Your task to perform on an android device: turn off picture-in-picture Image 0: 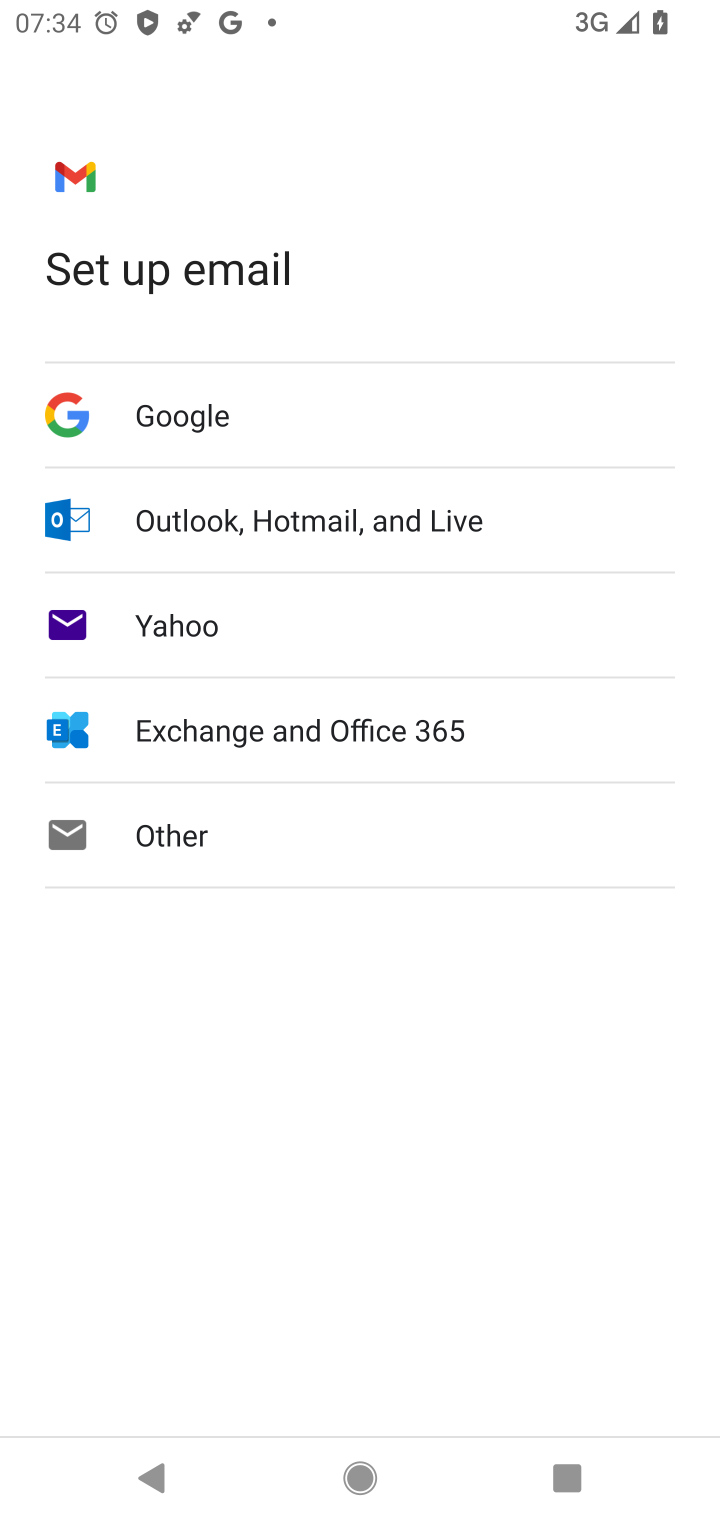
Step 0: press home button
Your task to perform on an android device: turn off picture-in-picture Image 1: 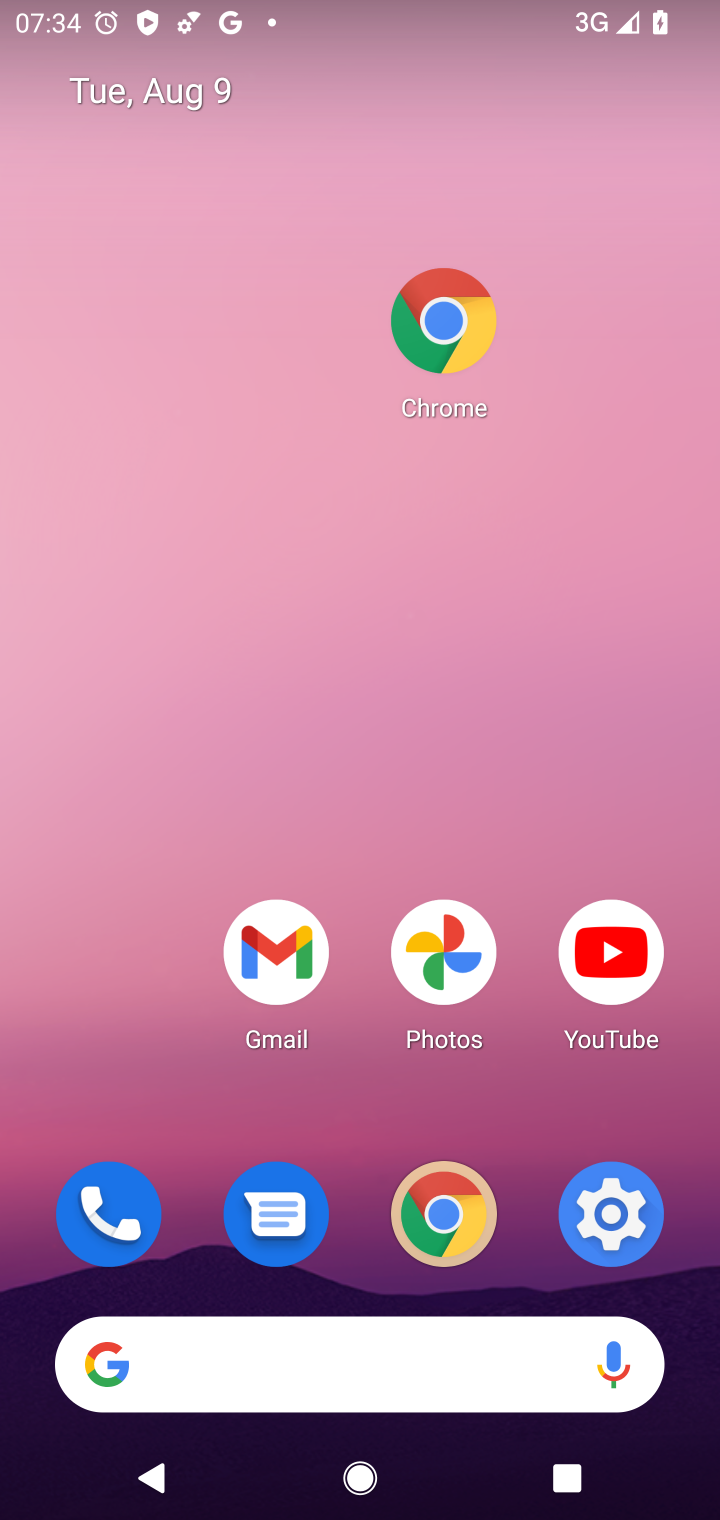
Step 1: click (615, 945)
Your task to perform on an android device: turn off picture-in-picture Image 2: 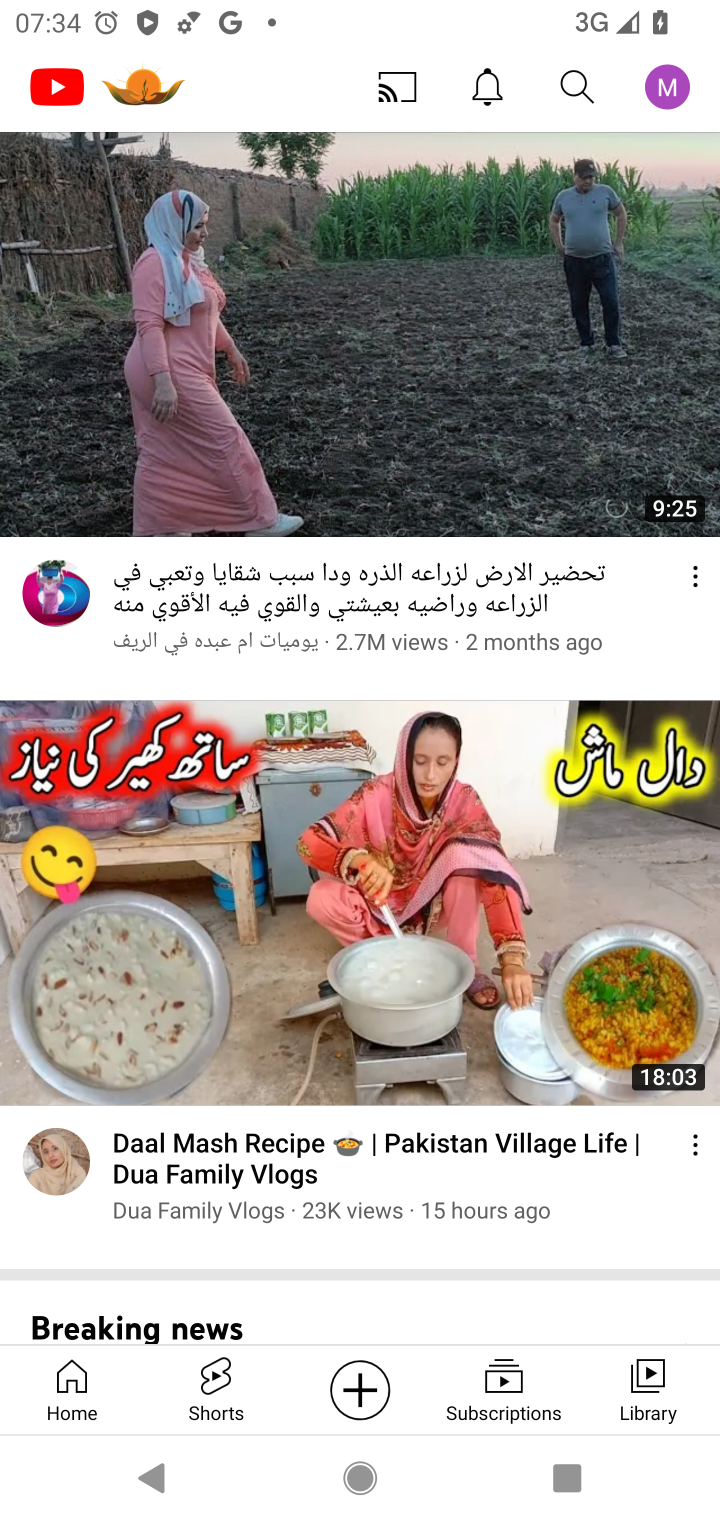
Step 2: click (661, 103)
Your task to perform on an android device: turn off picture-in-picture Image 3: 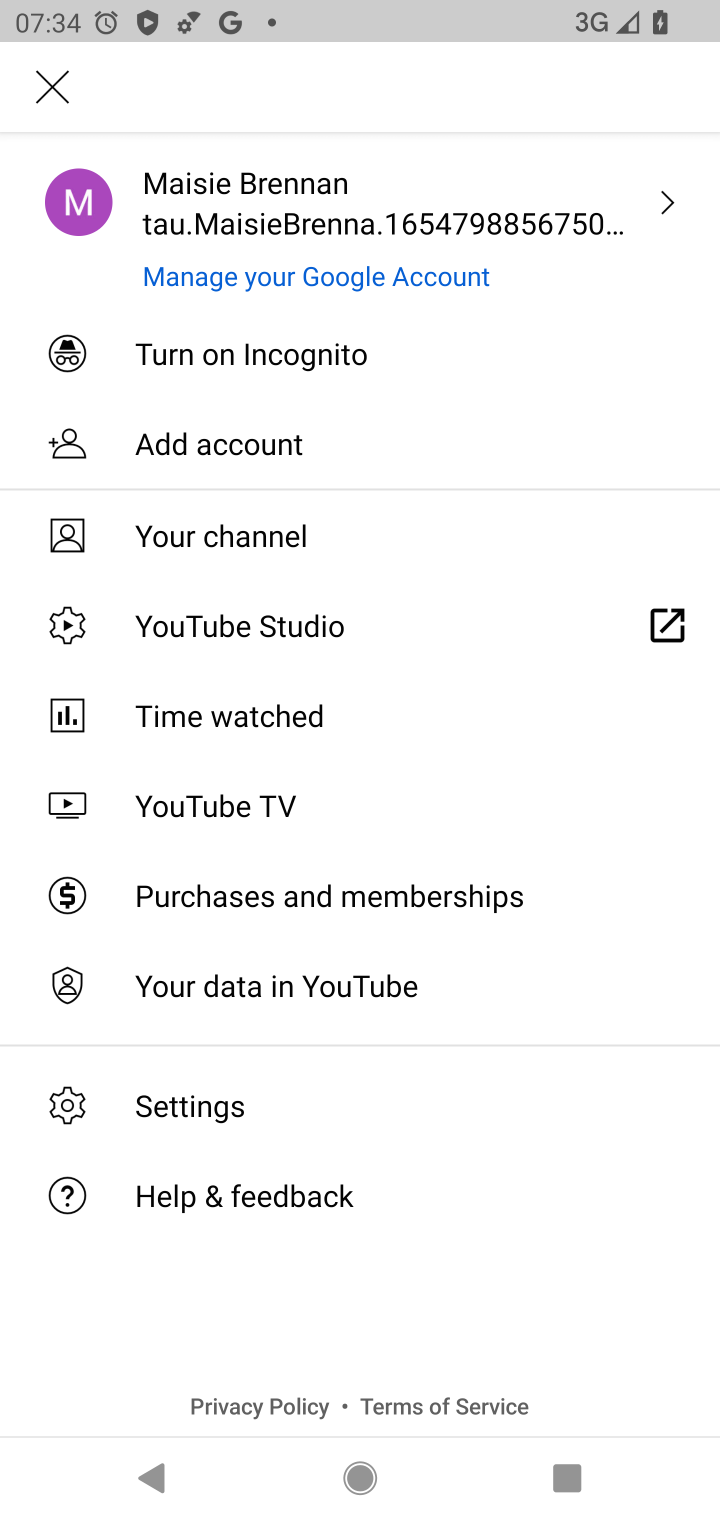
Step 3: click (227, 551)
Your task to perform on an android device: turn off picture-in-picture Image 4: 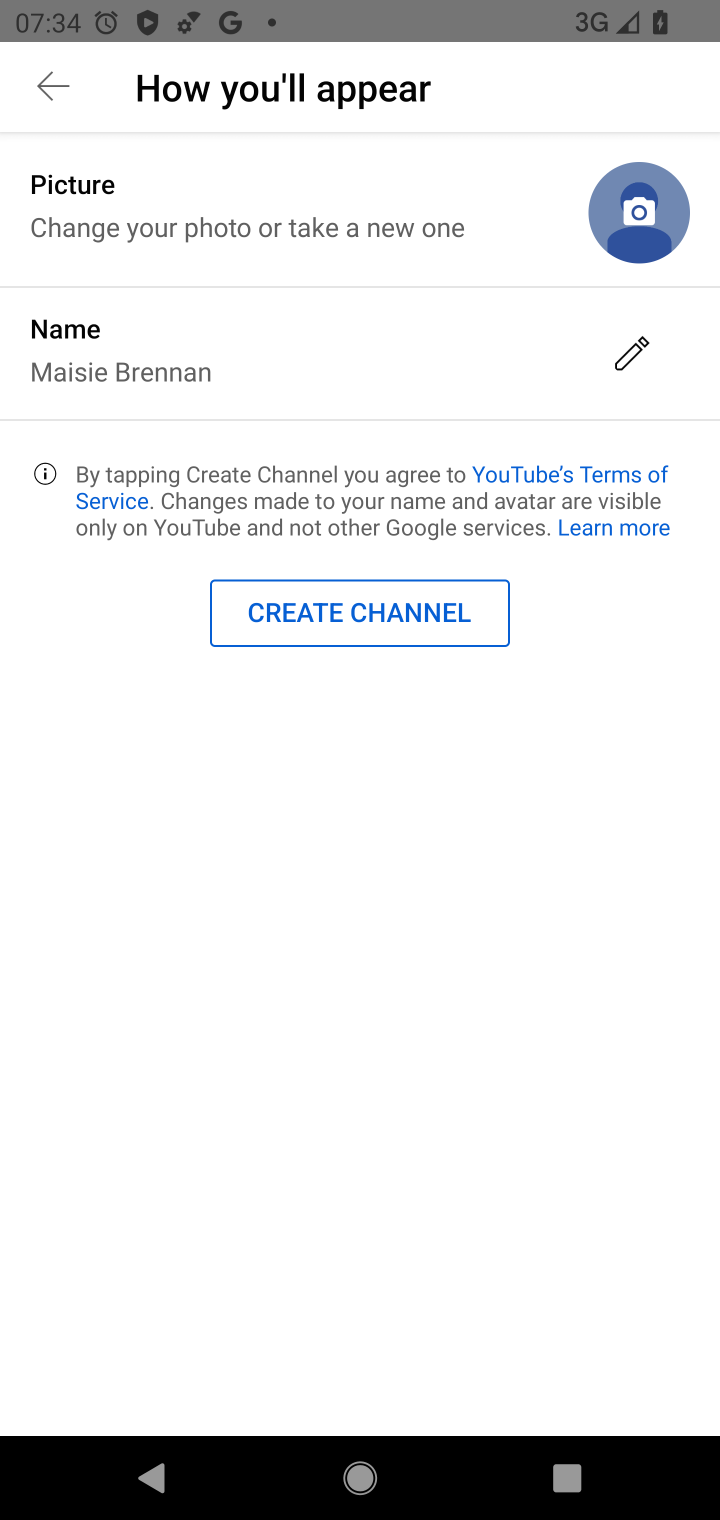
Step 4: click (57, 93)
Your task to perform on an android device: turn off picture-in-picture Image 5: 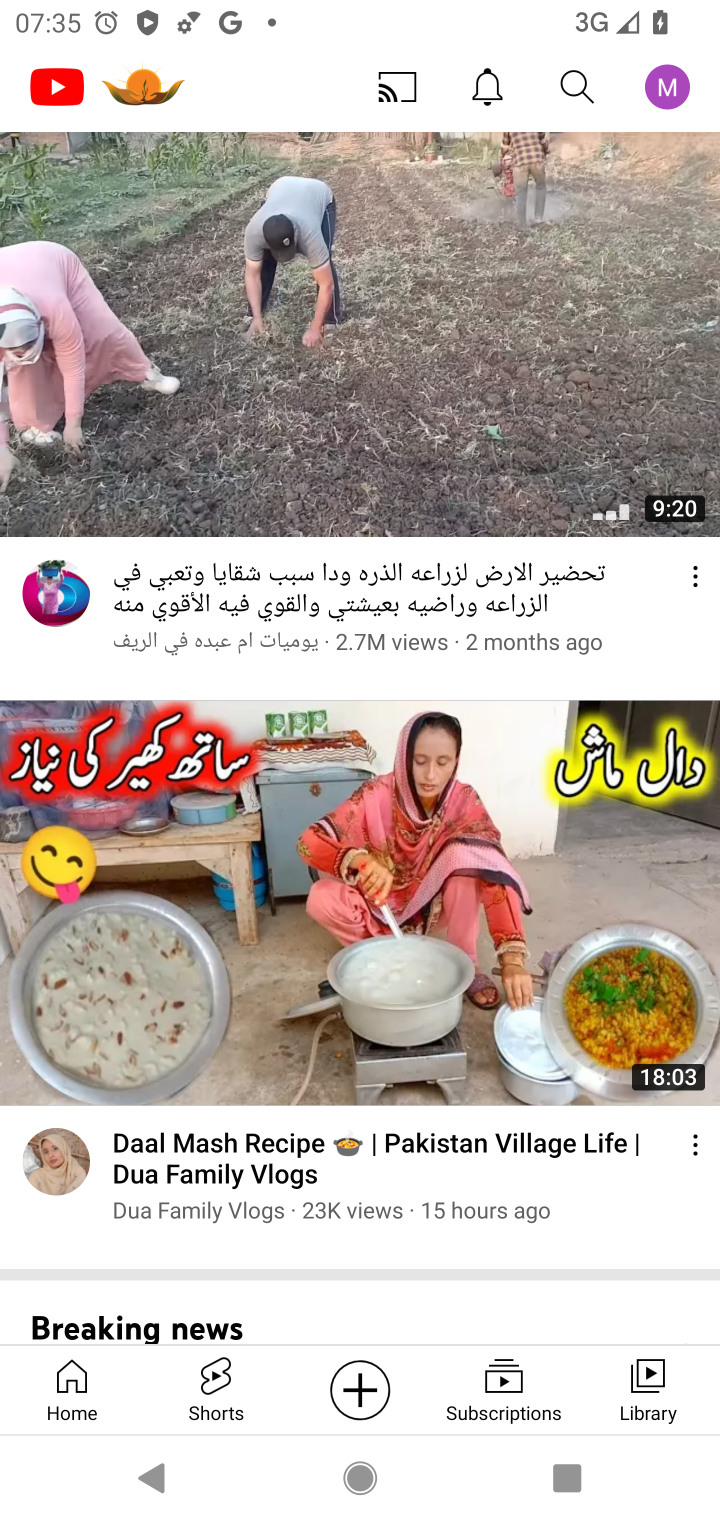
Step 5: click (668, 98)
Your task to perform on an android device: turn off picture-in-picture Image 6: 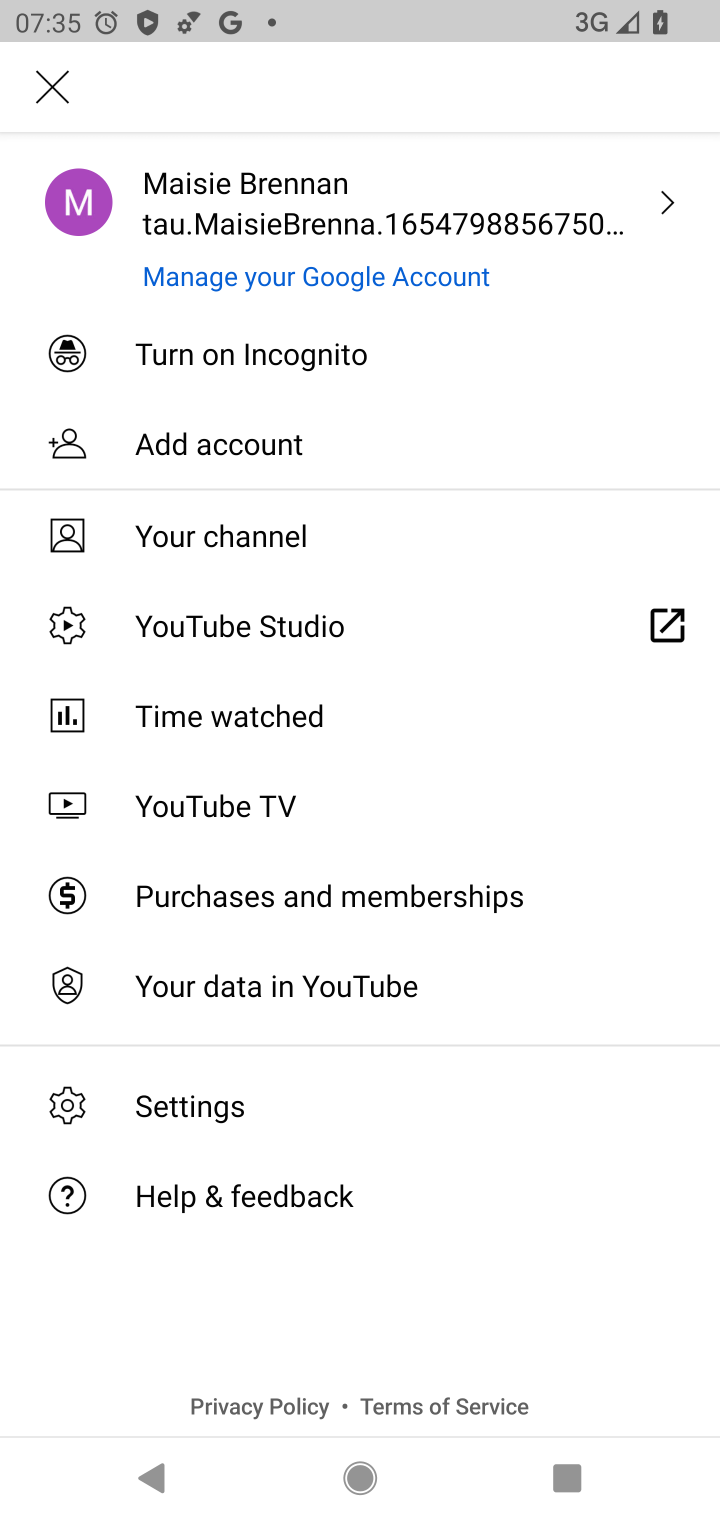
Step 6: click (139, 1112)
Your task to perform on an android device: turn off picture-in-picture Image 7: 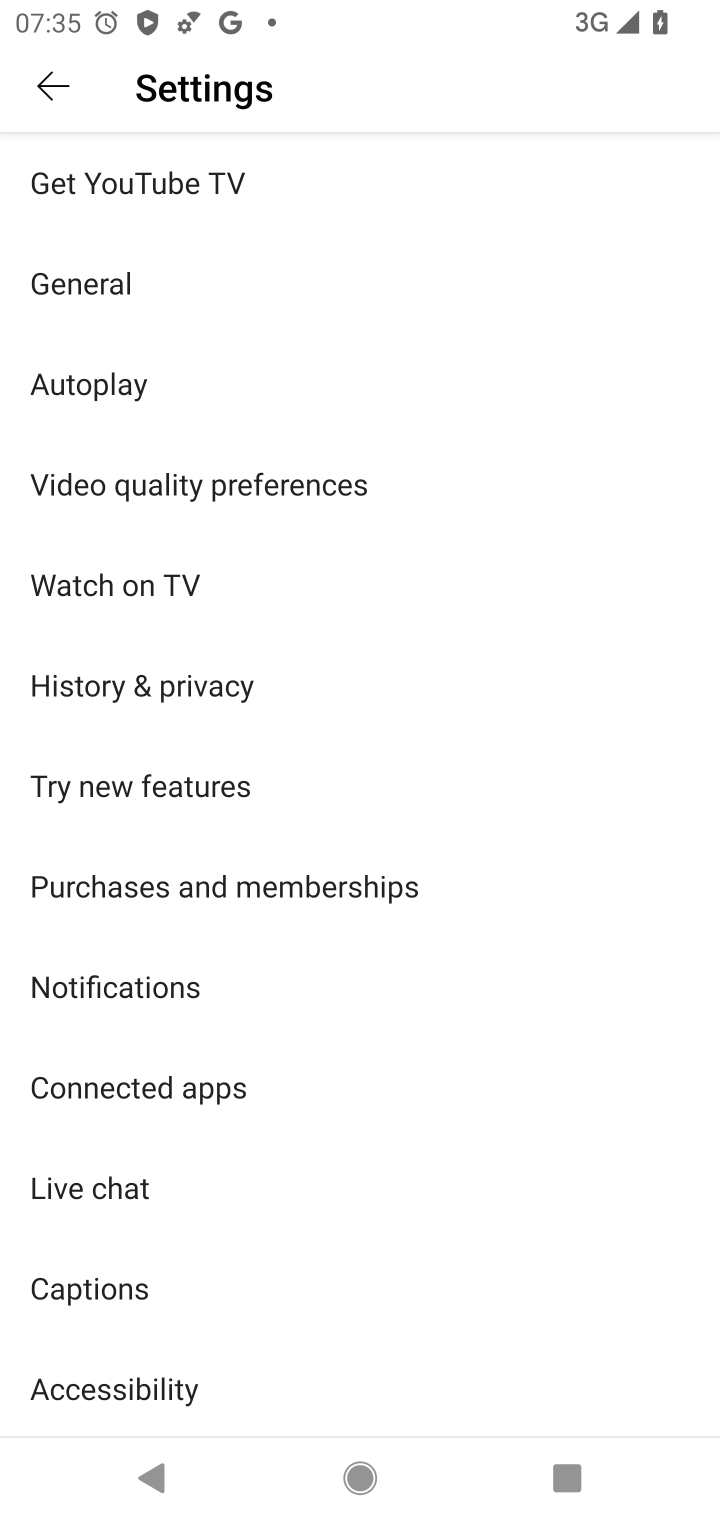
Step 7: click (70, 254)
Your task to perform on an android device: turn off picture-in-picture Image 8: 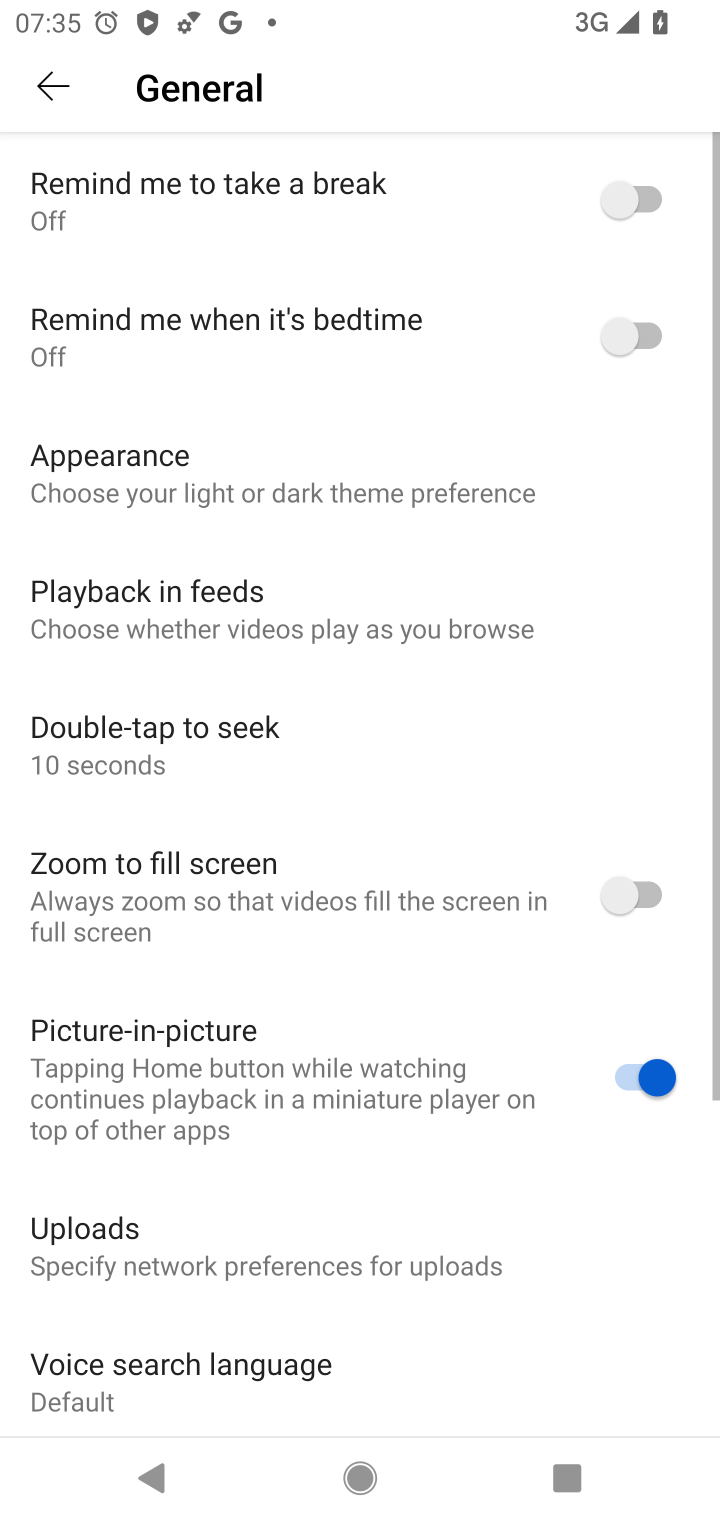
Step 8: click (644, 1090)
Your task to perform on an android device: turn off picture-in-picture Image 9: 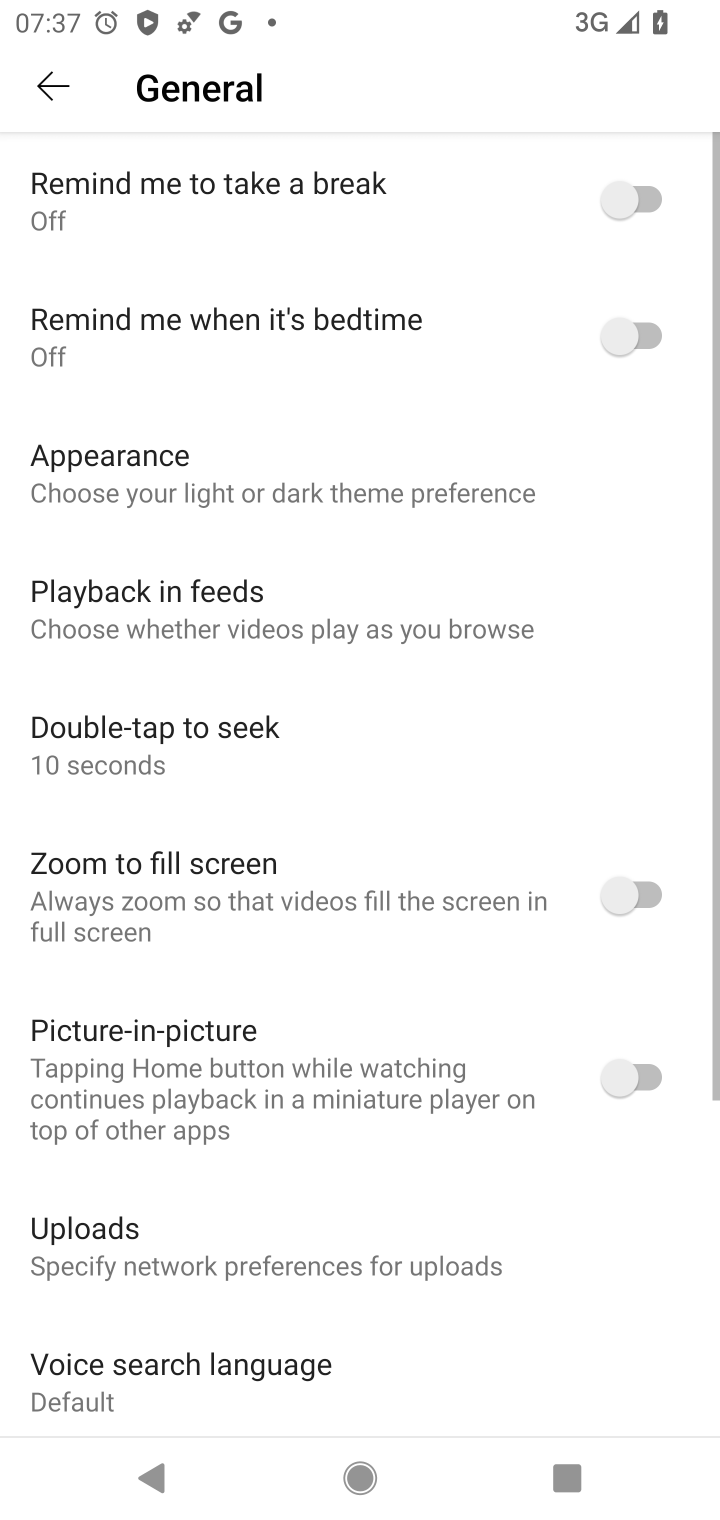
Step 9: task complete